Your task to perform on an android device: install app "Microsoft Outlook" Image 0: 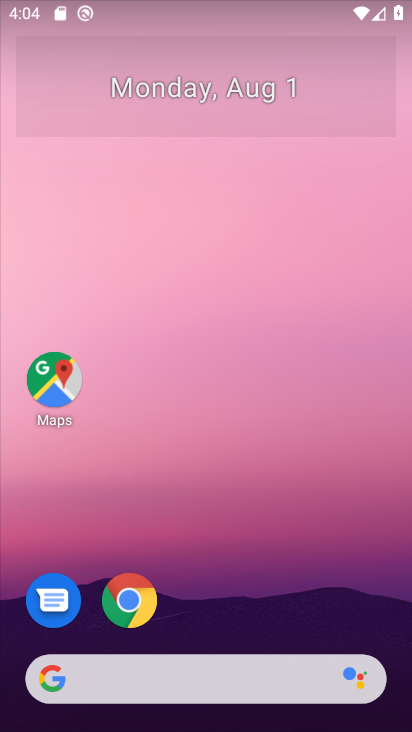
Step 0: drag from (275, 493) to (257, 40)
Your task to perform on an android device: install app "Microsoft Outlook" Image 1: 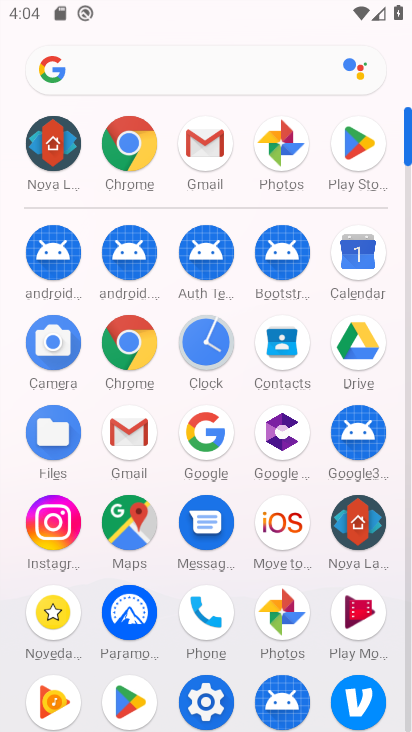
Step 1: click (343, 162)
Your task to perform on an android device: install app "Microsoft Outlook" Image 2: 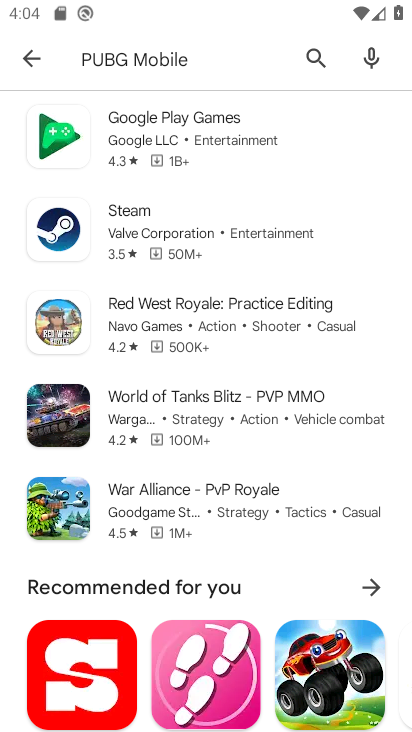
Step 2: click (214, 59)
Your task to perform on an android device: install app "Microsoft Outlook" Image 3: 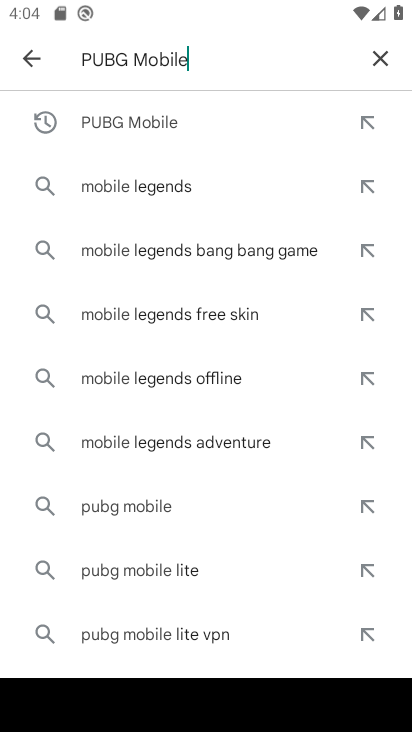
Step 3: click (387, 55)
Your task to perform on an android device: install app "Microsoft Outlook" Image 4: 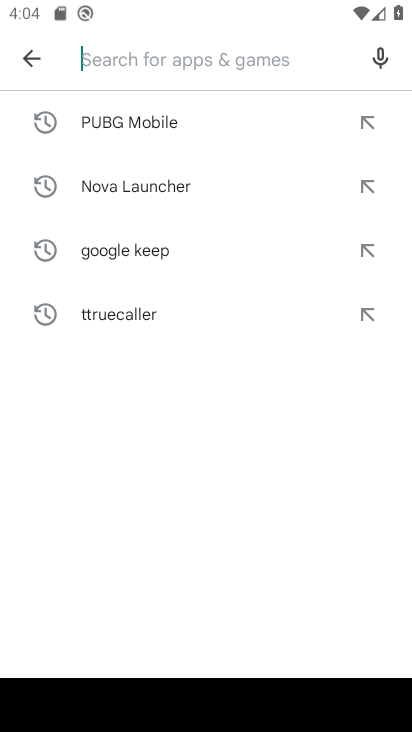
Step 4: type "Microsoft Outlook"
Your task to perform on an android device: install app "Microsoft Outlook" Image 5: 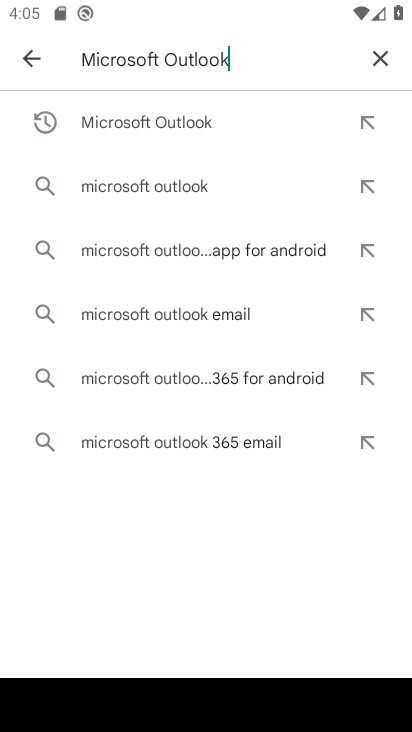
Step 5: press enter
Your task to perform on an android device: install app "Microsoft Outlook" Image 6: 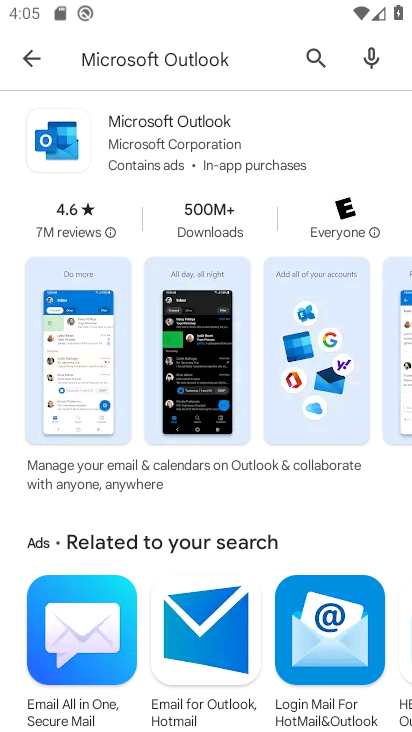
Step 6: click (198, 136)
Your task to perform on an android device: install app "Microsoft Outlook" Image 7: 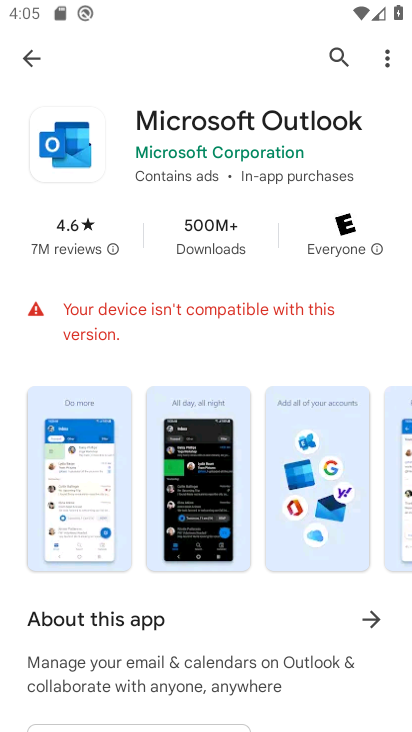
Step 7: task complete